Your task to perform on an android device: find which apps use the phone's location Image 0: 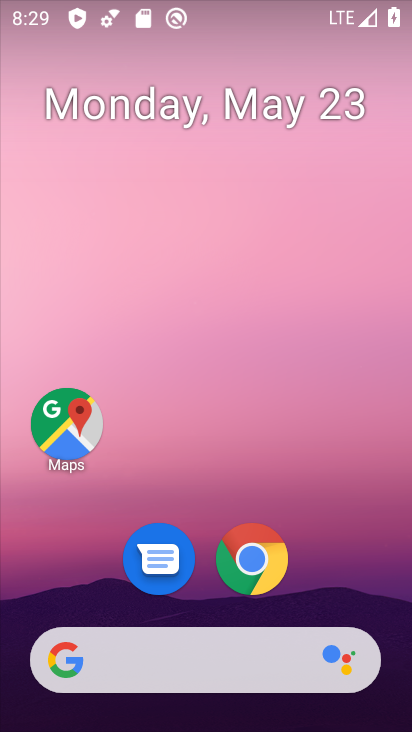
Step 0: drag from (308, 589) to (318, 1)
Your task to perform on an android device: find which apps use the phone's location Image 1: 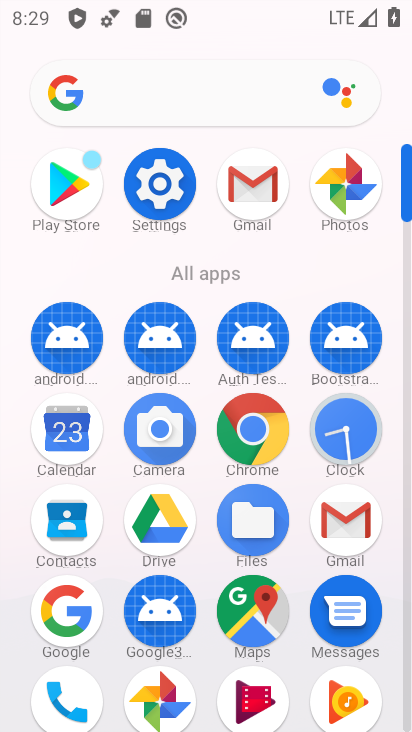
Step 1: click (164, 185)
Your task to perform on an android device: find which apps use the phone's location Image 2: 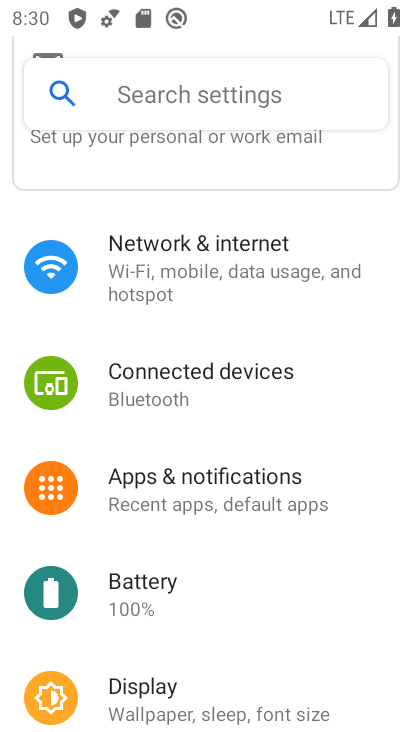
Step 2: drag from (204, 674) to (193, 432)
Your task to perform on an android device: find which apps use the phone's location Image 3: 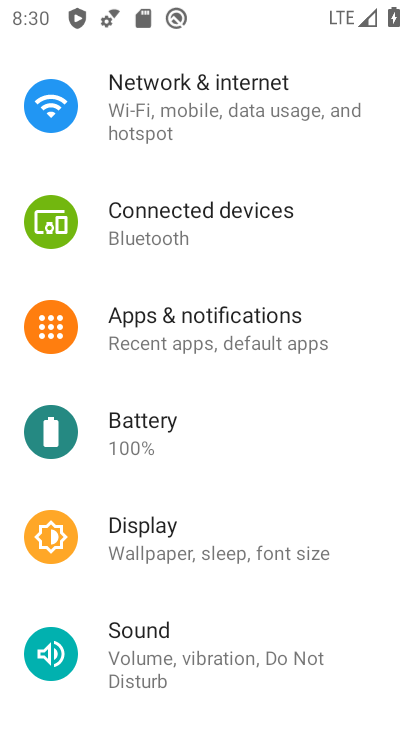
Step 3: drag from (170, 622) to (212, 400)
Your task to perform on an android device: find which apps use the phone's location Image 4: 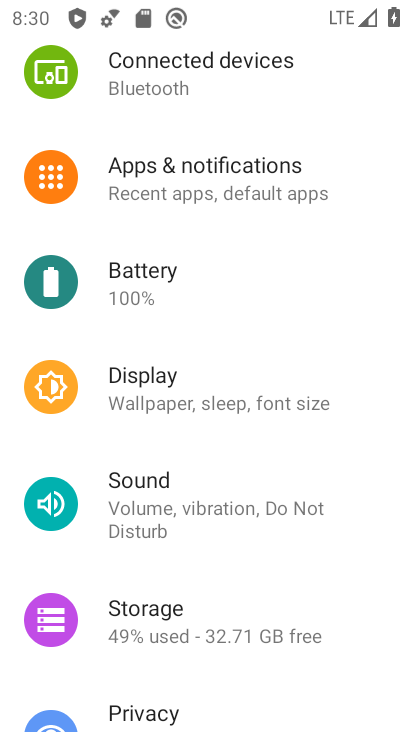
Step 4: drag from (157, 658) to (158, 425)
Your task to perform on an android device: find which apps use the phone's location Image 5: 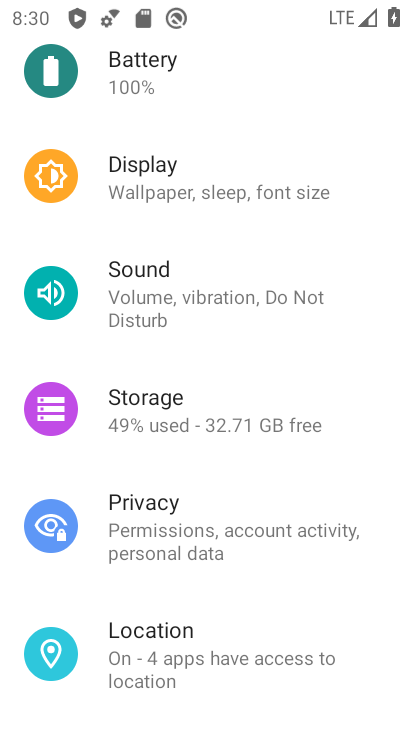
Step 5: click (181, 660)
Your task to perform on an android device: find which apps use the phone's location Image 6: 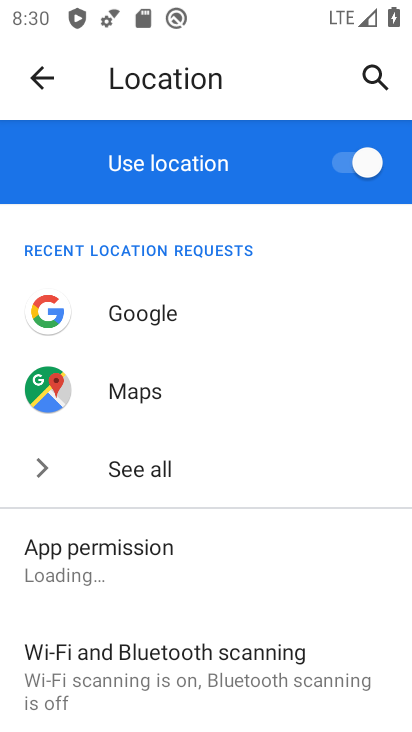
Step 6: drag from (183, 692) to (184, 570)
Your task to perform on an android device: find which apps use the phone's location Image 7: 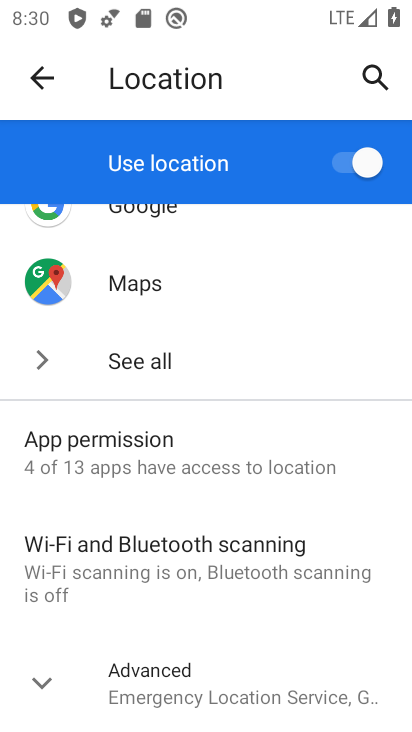
Step 7: click (142, 472)
Your task to perform on an android device: find which apps use the phone's location Image 8: 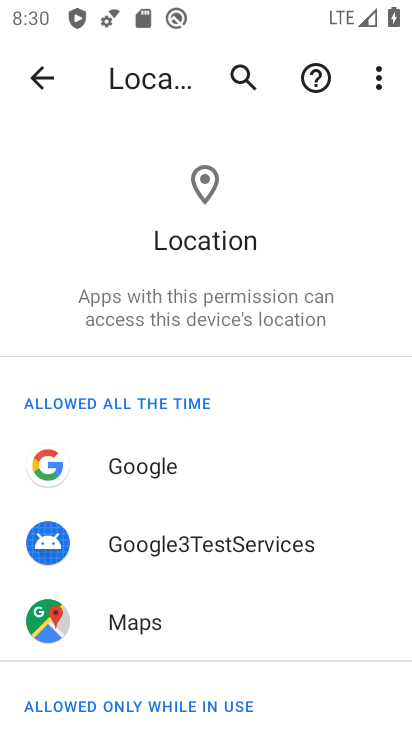
Step 8: task complete